Your task to perform on an android device: change timer sound Image 0: 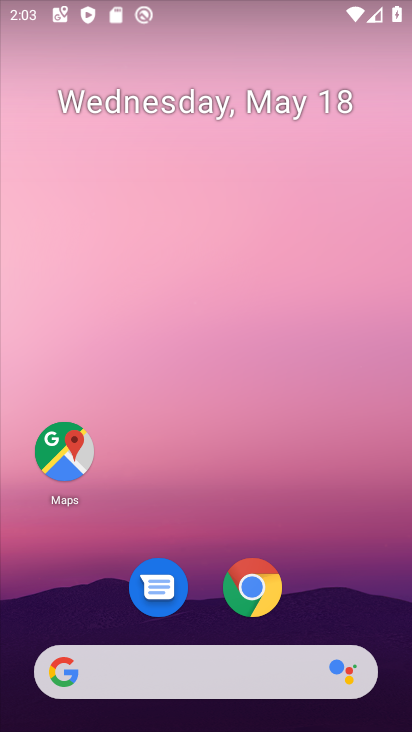
Step 0: drag from (347, 618) to (331, 9)
Your task to perform on an android device: change timer sound Image 1: 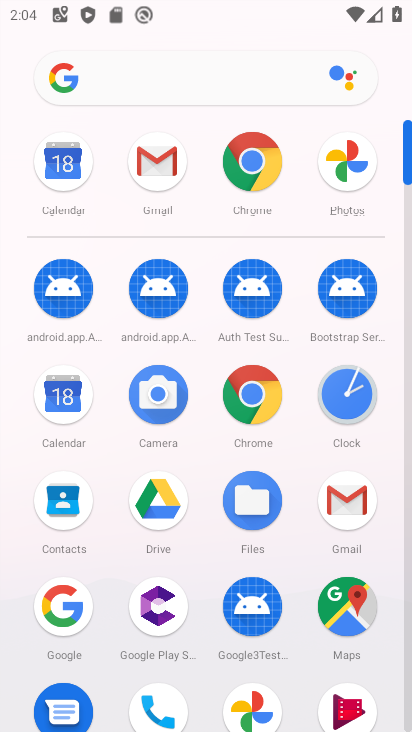
Step 1: click (338, 389)
Your task to perform on an android device: change timer sound Image 2: 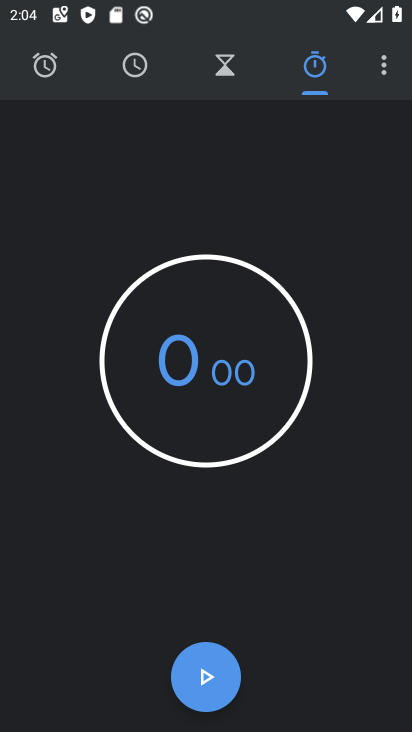
Step 2: click (383, 68)
Your task to perform on an android device: change timer sound Image 3: 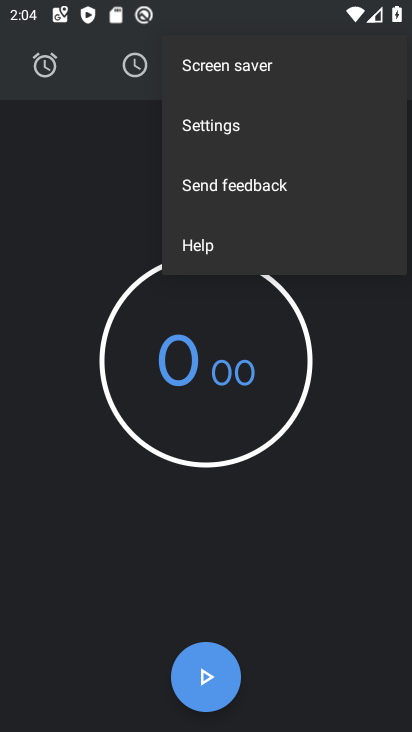
Step 3: click (214, 134)
Your task to perform on an android device: change timer sound Image 4: 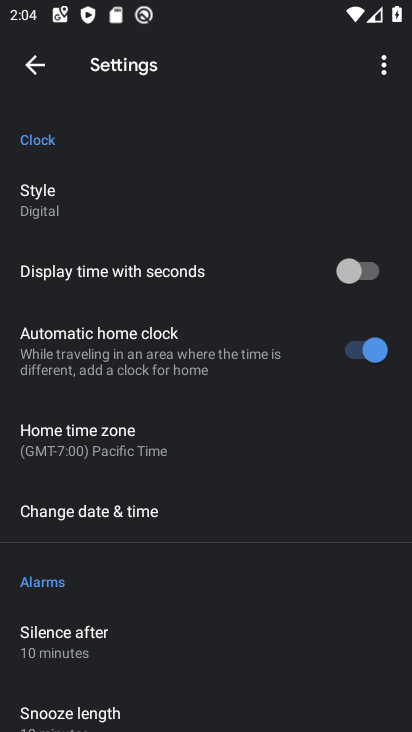
Step 4: drag from (193, 529) to (181, 148)
Your task to perform on an android device: change timer sound Image 5: 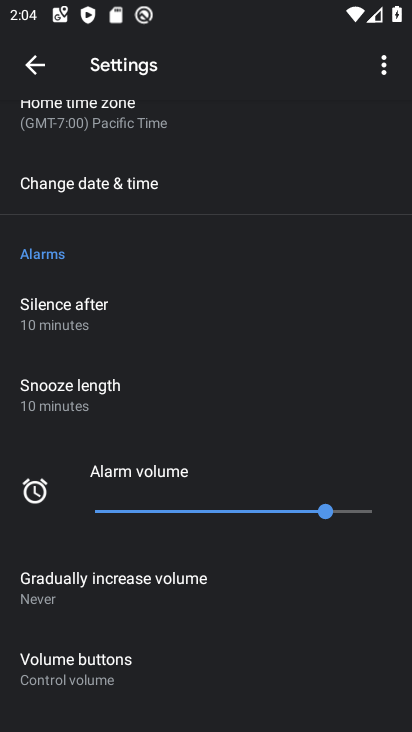
Step 5: drag from (164, 386) to (162, 144)
Your task to perform on an android device: change timer sound Image 6: 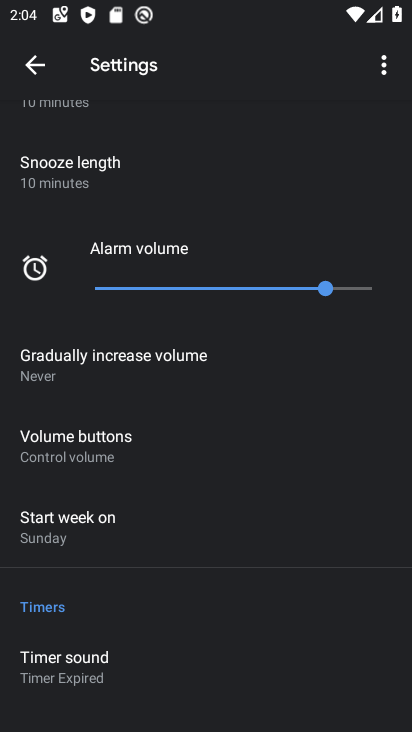
Step 6: click (68, 666)
Your task to perform on an android device: change timer sound Image 7: 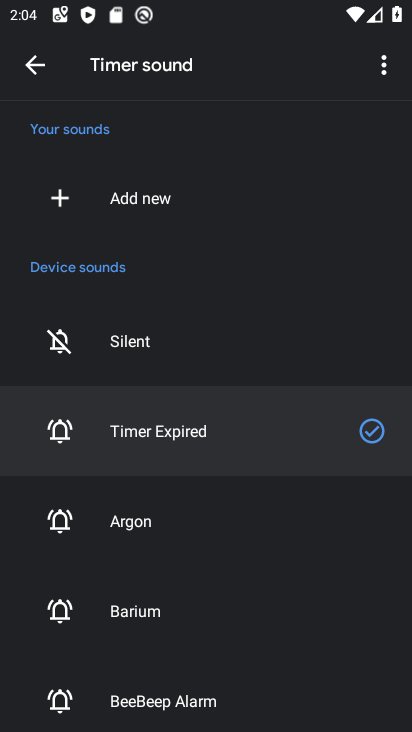
Step 7: click (118, 527)
Your task to perform on an android device: change timer sound Image 8: 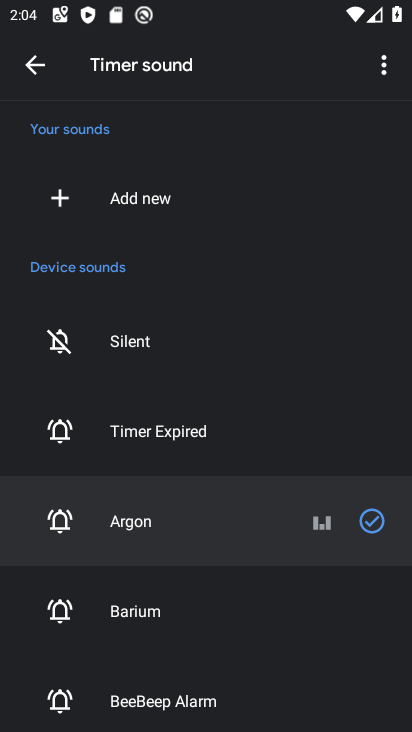
Step 8: task complete